Your task to perform on an android device: open chrome and create a bookmark for the current page Image 0: 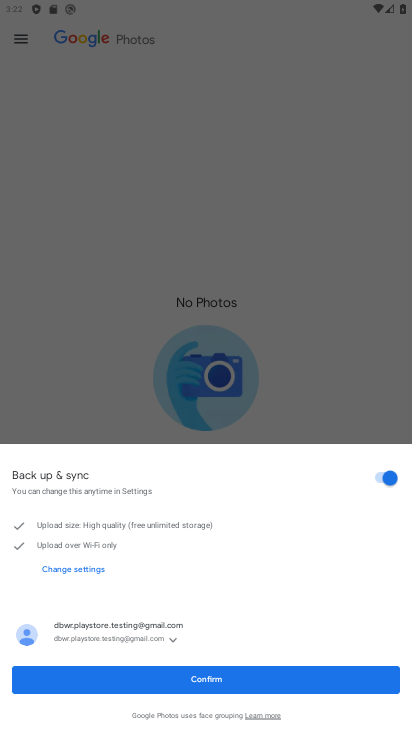
Step 0: press home button
Your task to perform on an android device: open chrome and create a bookmark for the current page Image 1: 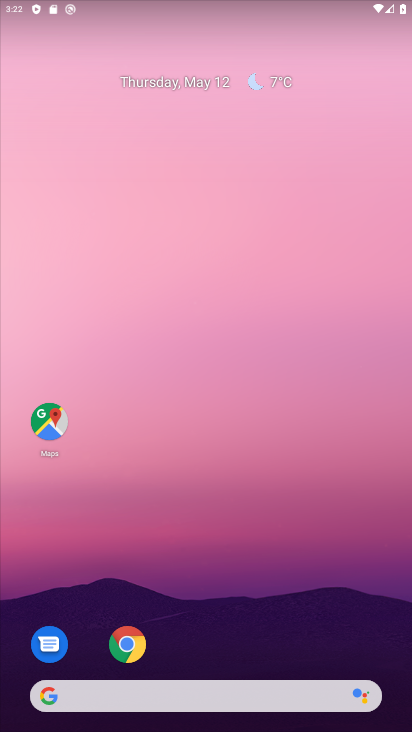
Step 1: drag from (248, 634) to (286, 36)
Your task to perform on an android device: open chrome and create a bookmark for the current page Image 2: 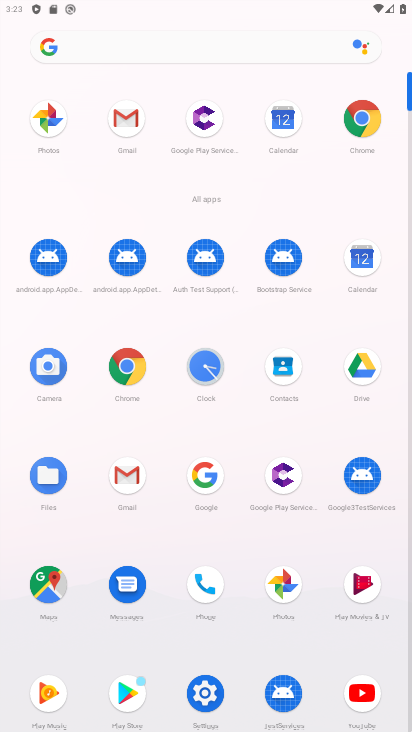
Step 2: click (359, 111)
Your task to perform on an android device: open chrome and create a bookmark for the current page Image 3: 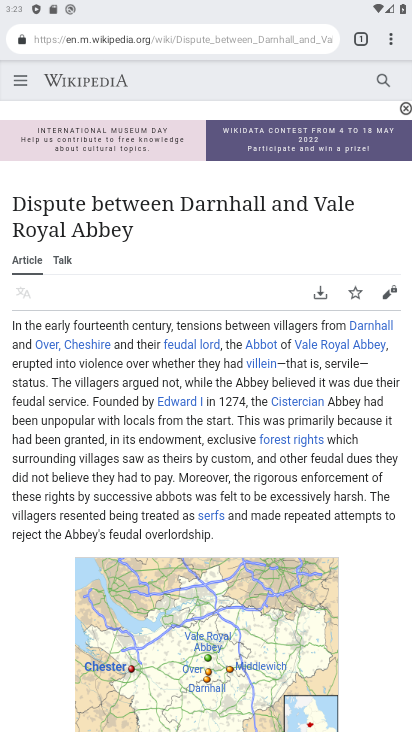
Step 3: click (388, 39)
Your task to perform on an android device: open chrome and create a bookmark for the current page Image 4: 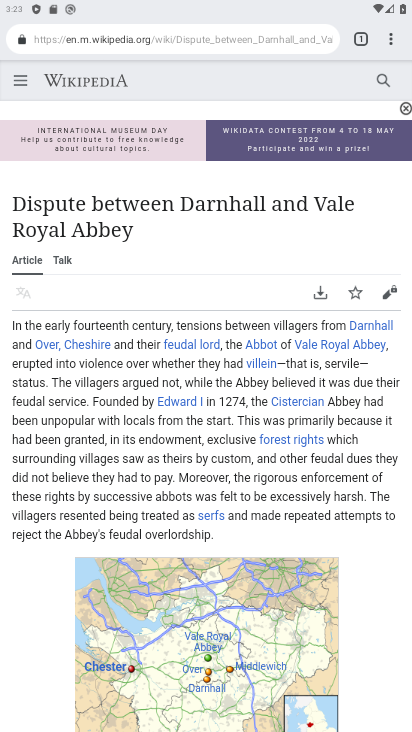
Step 4: click (389, 36)
Your task to perform on an android device: open chrome and create a bookmark for the current page Image 5: 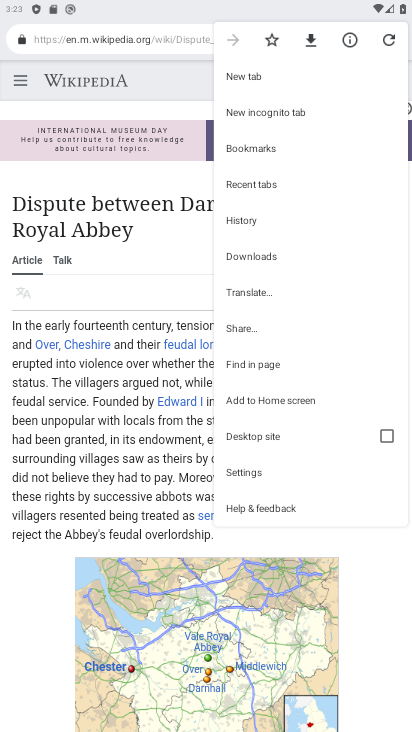
Step 5: click (277, 144)
Your task to perform on an android device: open chrome and create a bookmark for the current page Image 6: 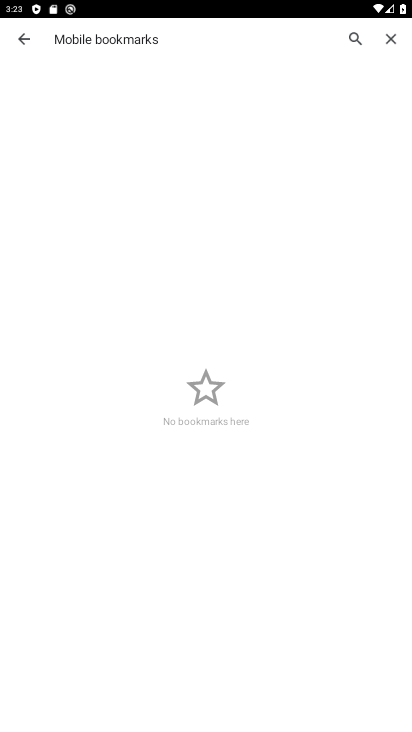
Step 6: click (15, 44)
Your task to perform on an android device: open chrome and create a bookmark for the current page Image 7: 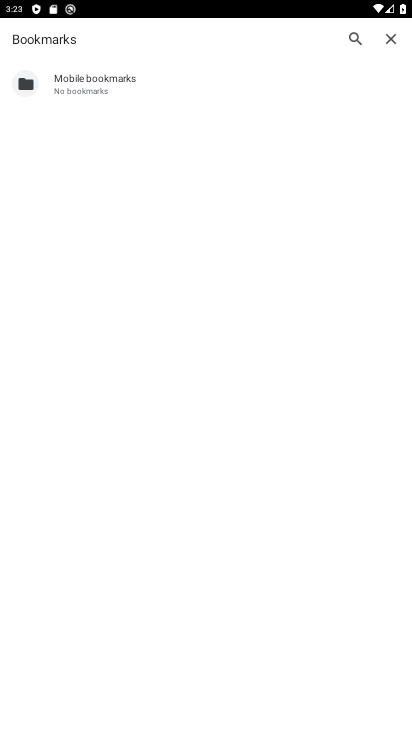
Step 7: click (384, 37)
Your task to perform on an android device: open chrome and create a bookmark for the current page Image 8: 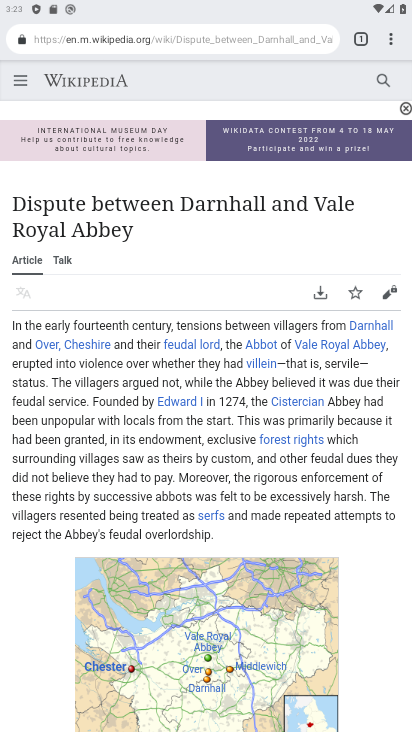
Step 8: press back button
Your task to perform on an android device: open chrome and create a bookmark for the current page Image 9: 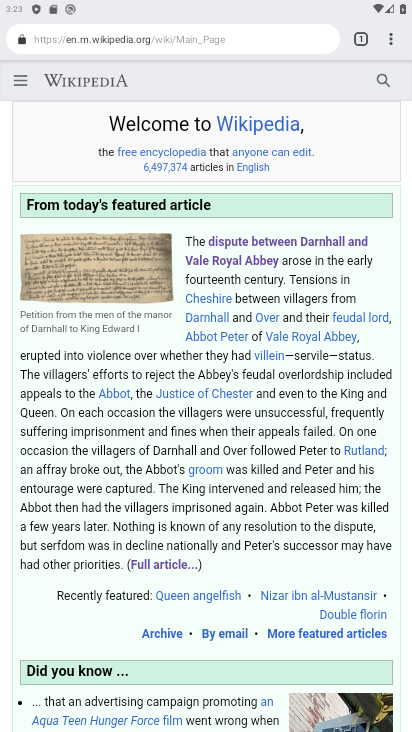
Step 9: press back button
Your task to perform on an android device: open chrome and create a bookmark for the current page Image 10: 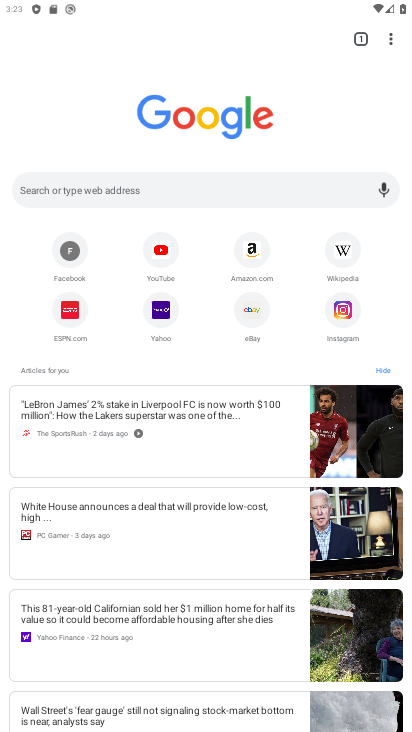
Step 10: click (118, 186)
Your task to perform on an android device: open chrome and create a bookmark for the current page Image 11: 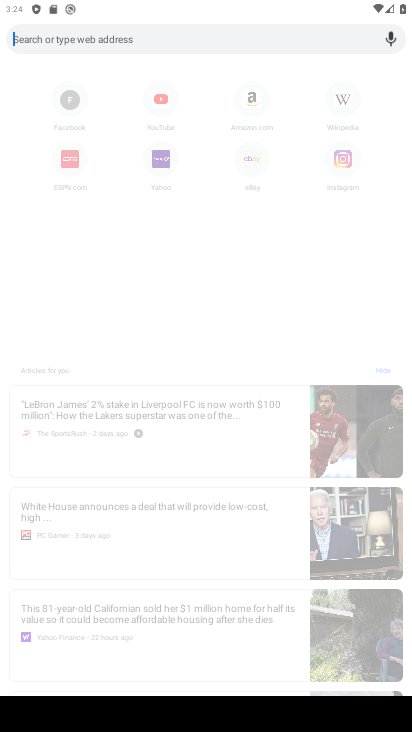
Step 11: type "whatsapp"
Your task to perform on an android device: open chrome and create a bookmark for the current page Image 12: 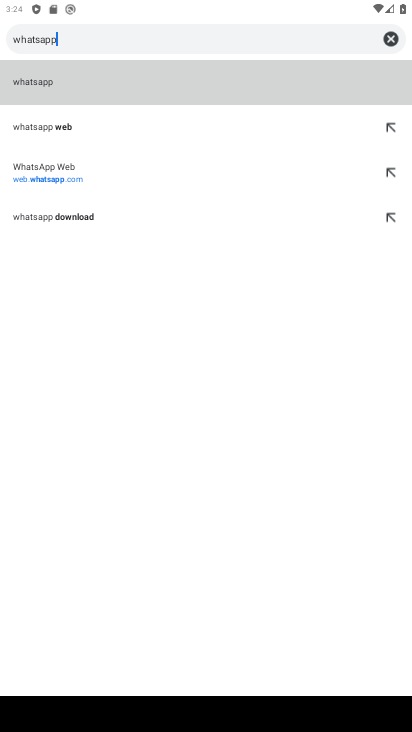
Step 12: click (109, 89)
Your task to perform on an android device: open chrome and create a bookmark for the current page Image 13: 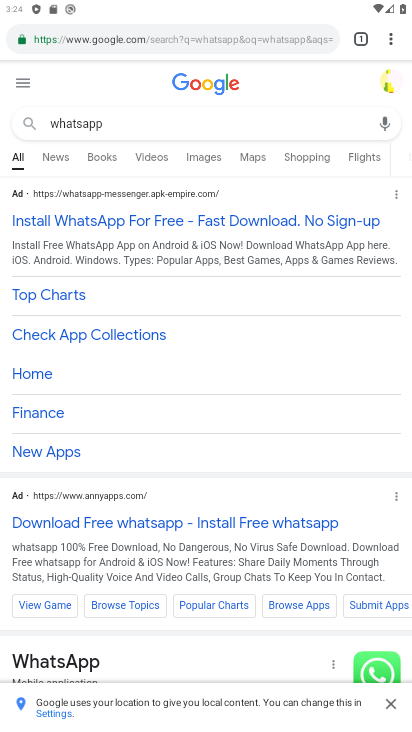
Step 13: click (90, 222)
Your task to perform on an android device: open chrome and create a bookmark for the current page Image 14: 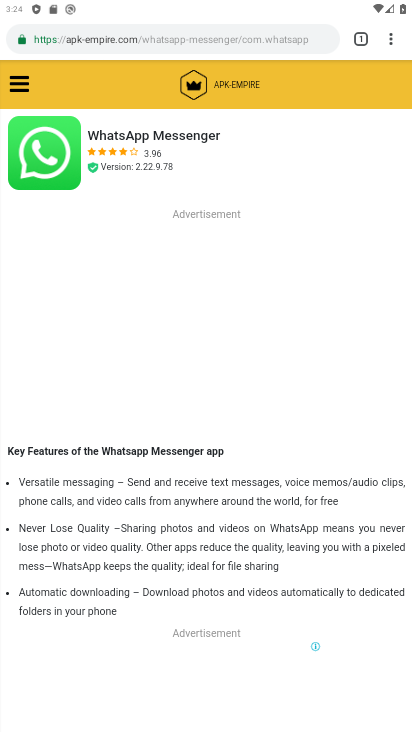
Step 14: click (392, 29)
Your task to perform on an android device: open chrome and create a bookmark for the current page Image 15: 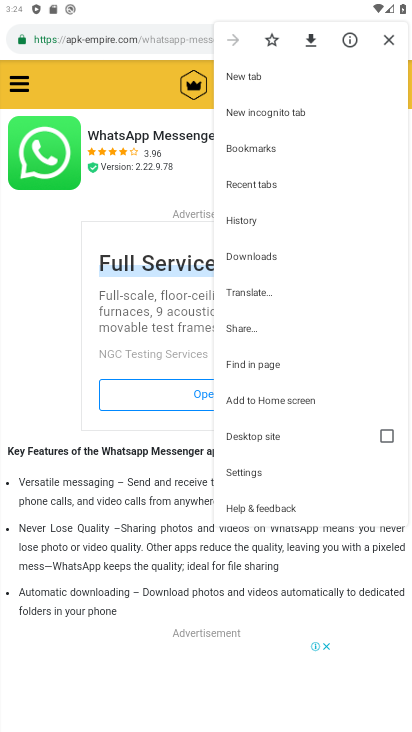
Step 15: click (269, 38)
Your task to perform on an android device: open chrome and create a bookmark for the current page Image 16: 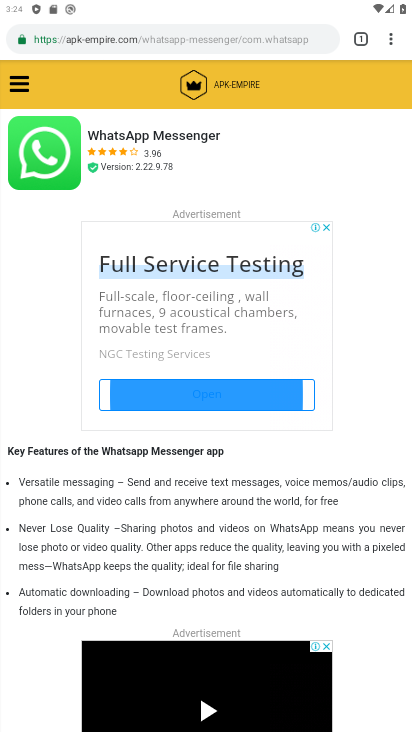
Step 16: task complete